Your task to perform on an android device: find photos in the google photos app Image 0: 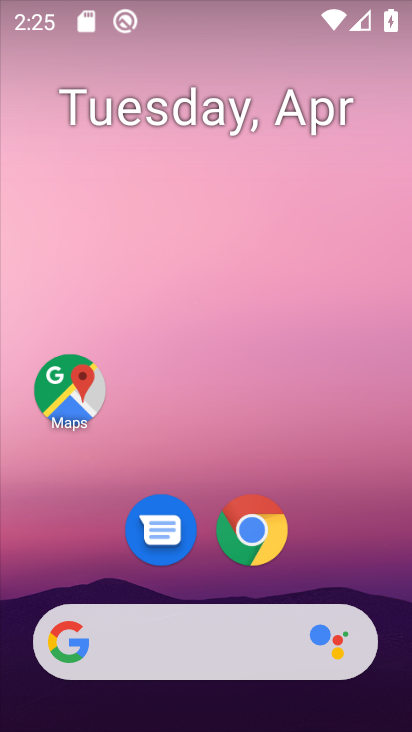
Step 0: drag from (216, 721) to (206, 20)
Your task to perform on an android device: find photos in the google photos app Image 1: 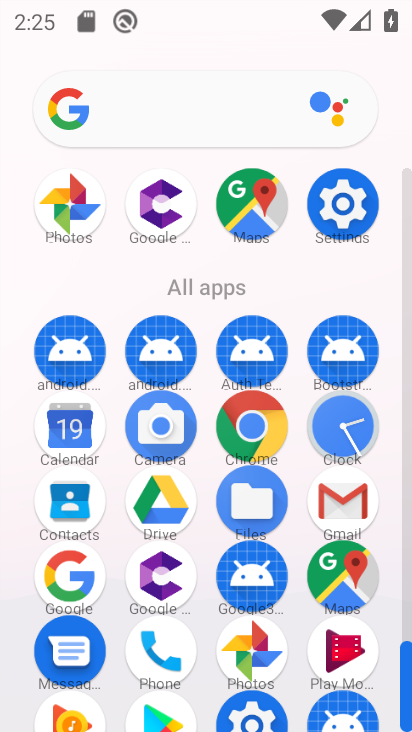
Step 1: click (68, 202)
Your task to perform on an android device: find photos in the google photos app Image 2: 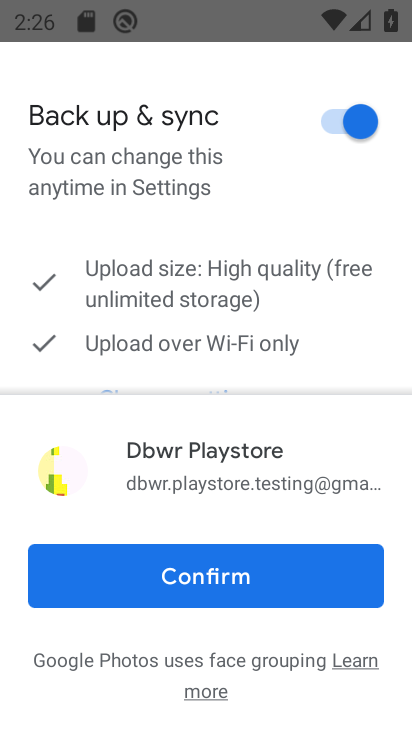
Step 2: click (206, 578)
Your task to perform on an android device: find photos in the google photos app Image 3: 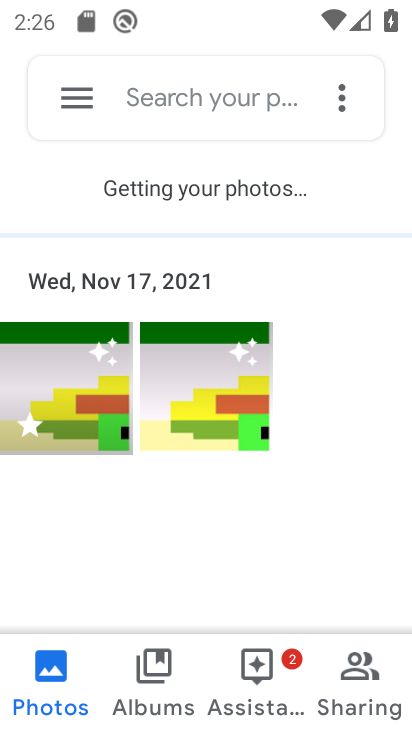
Step 3: click (91, 402)
Your task to perform on an android device: find photos in the google photos app Image 4: 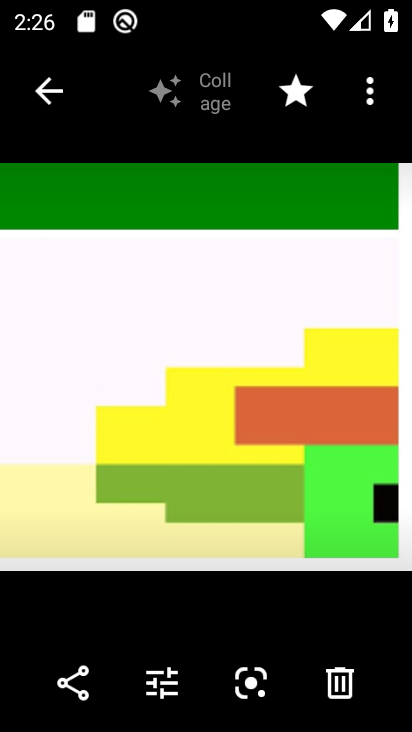
Step 4: task complete